Your task to perform on an android device: add a contact in the contacts app Image 0: 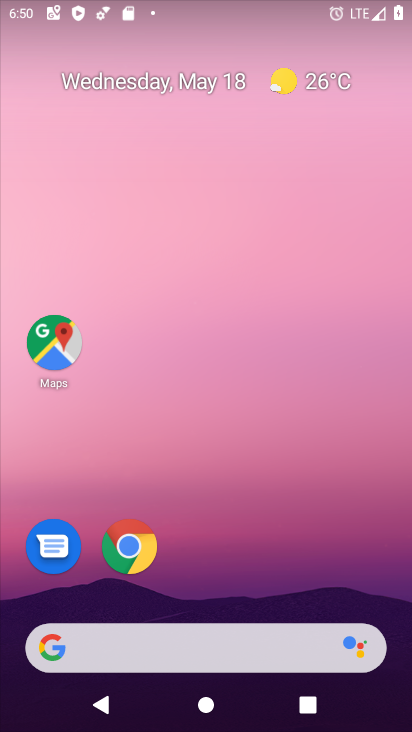
Step 0: drag from (384, 621) to (274, 60)
Your task to perform on an android device: add a contact in the contacts app Image 1: 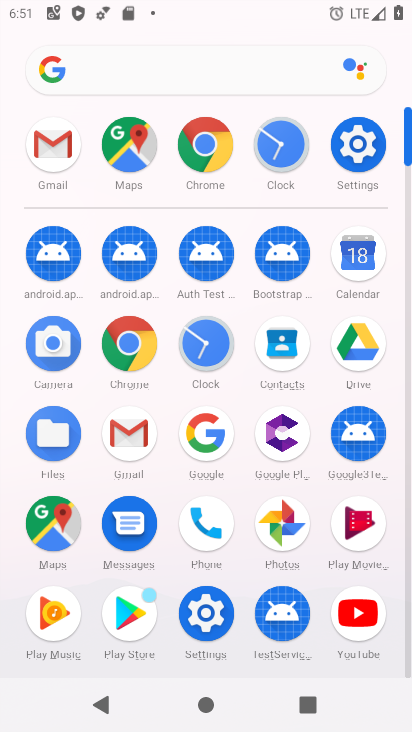
Step 1: click (291, 354)
Your task to perform on an android device: add a contact in the contacts app Image 2: 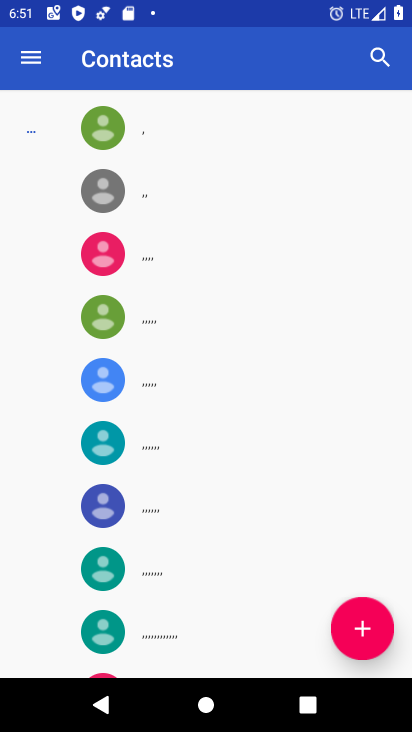
Step 2: click (373, 635)
Your task to perform on an android device: add a contact in the contacts app Image 3: 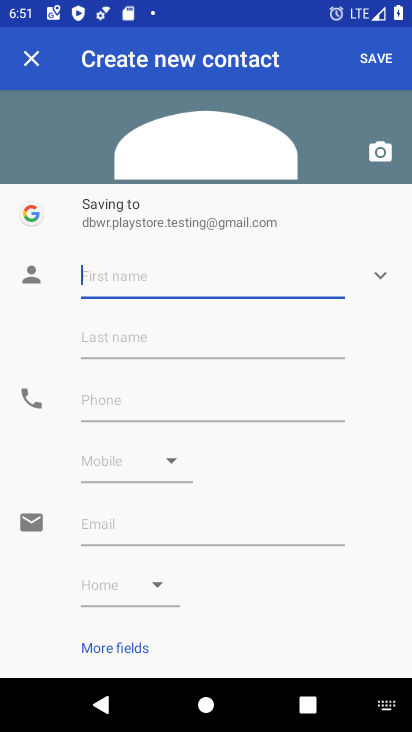
Step 3: type "nikhil"
Your task to perform on an android device: add a contact in the contacts app Image 4: 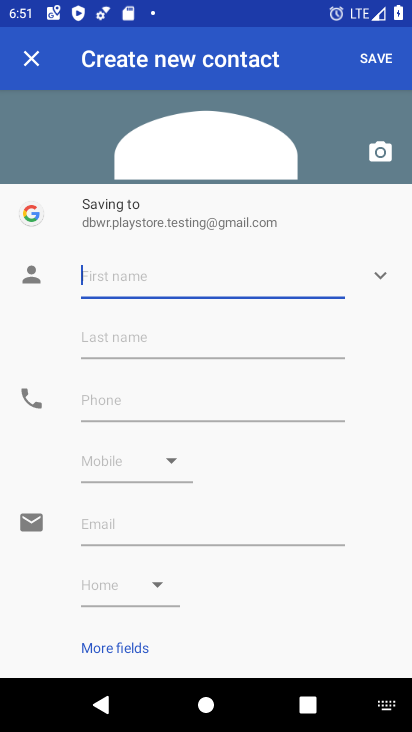
Step 4: click (380, 50)
Your task to perform on an android device: add a contact in the contacts app Image 5: 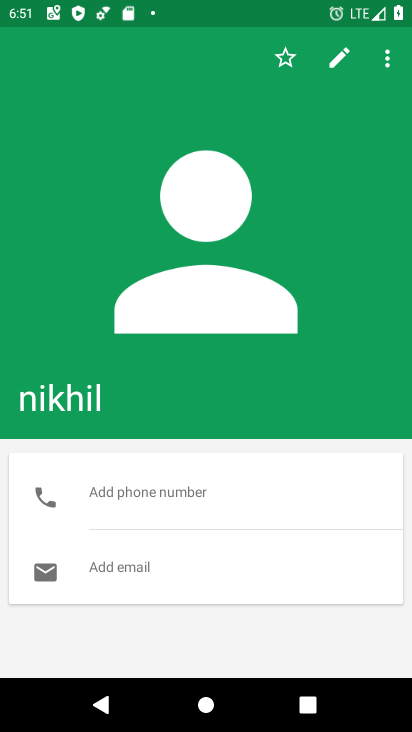
Step 5: task complete